Your task to perform on an android device: change your default location settings in chrome Image 0: 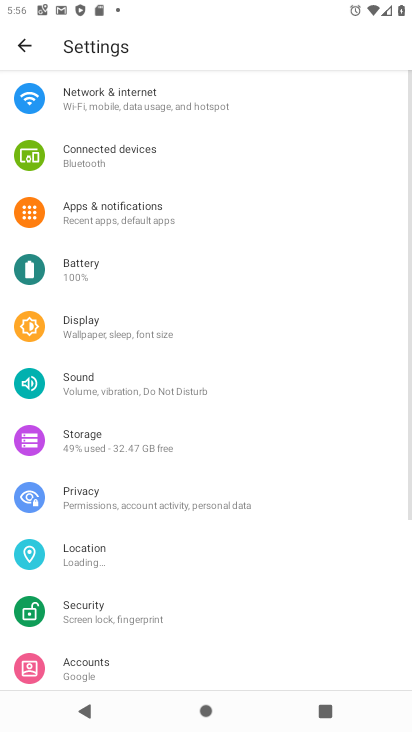
Step 0: press home button
Your task to perform on an android device: change your default location settings in chrome Image 1: 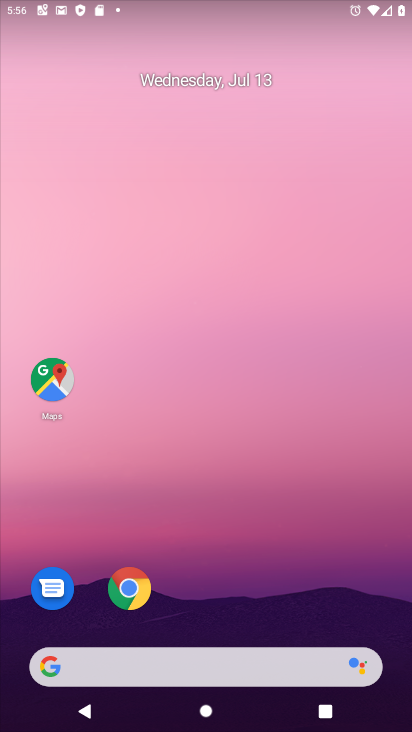
Step 1: click (126, 593)
Your task to perform on an android device: change your default location settings in chrome Image 2: 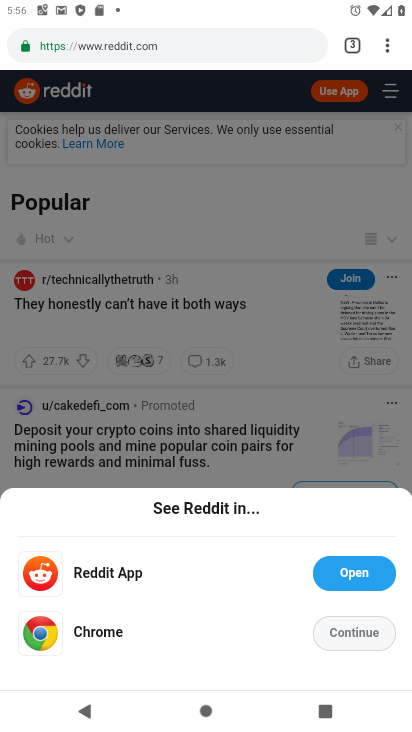
Step 2: click (336, 636)
Your task to perform on an android device: change your default location settings in chrome Image 3: 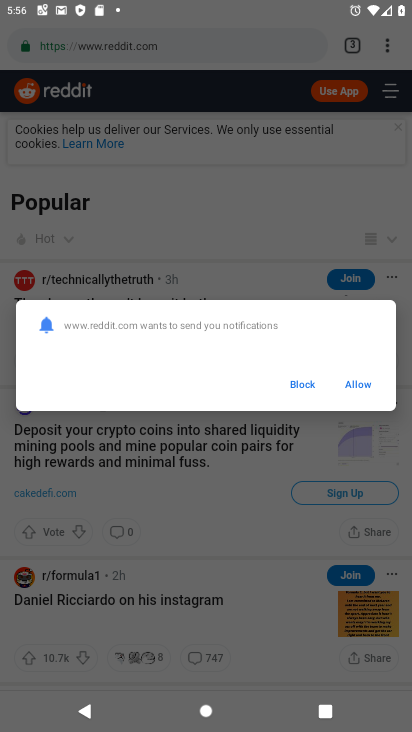
Step 3: click (353, 378)
Your task to perform on an android device: change your default location settings in chrome Image 4: 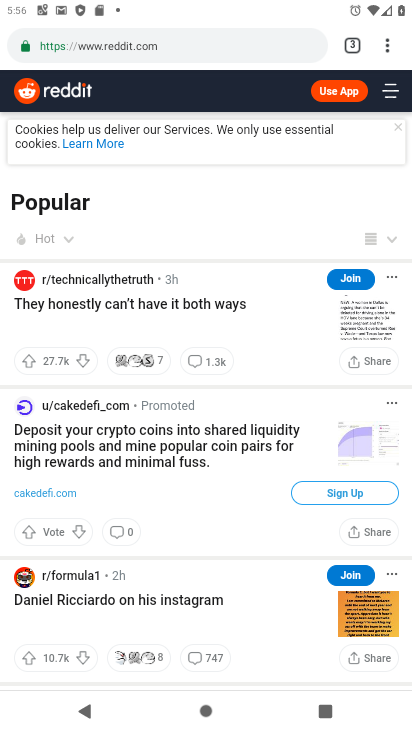
Step 4: click (383, 43)
Your task to perform on an android device: change your default location settings in chrome Image 5: 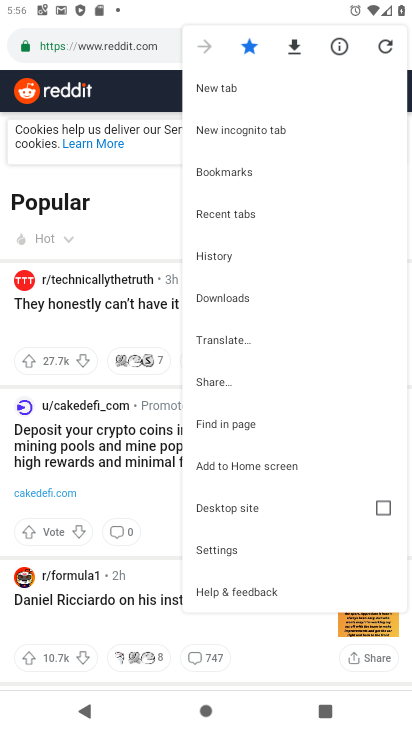
Step 5: click (227, 553)
Your task to perform on an android device: change your default location settings in chrome Image 6: 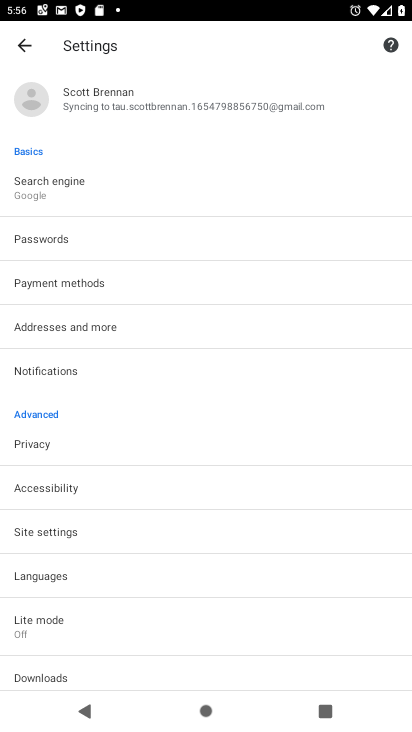
Step 6: drag from (107, 621) to (104, 372)
Your task to perform on an android device: change your default location settings in chrome Image 7: 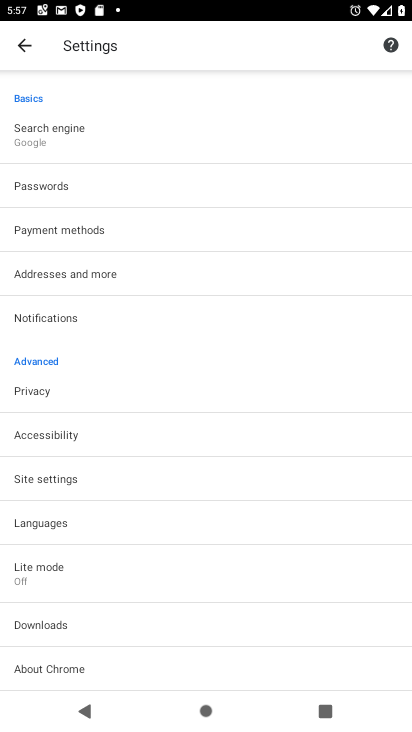
Step 7: click (58, 485)
Your task to perform on an android device: change your default location settings in chrome Image 8: 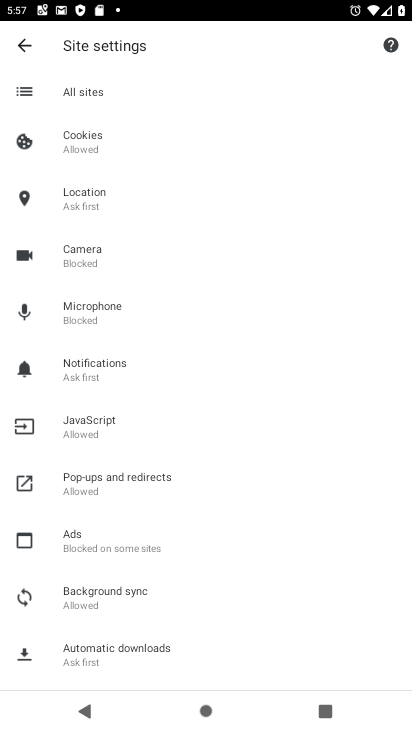
Step 8: click (98, 196)
Your task to perform on an android device: change your default location settings in chrome Image 9: 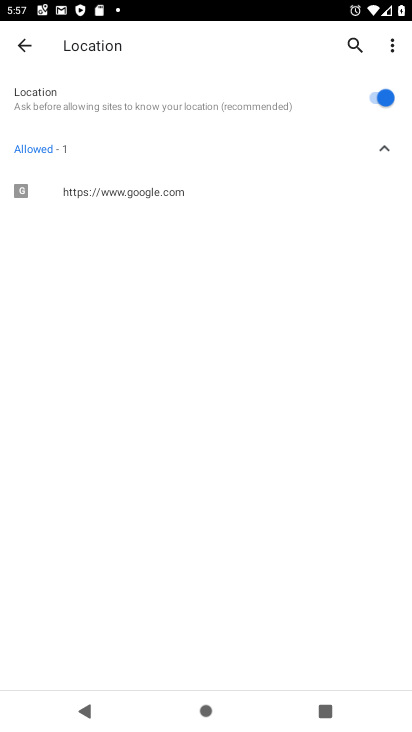
Step 9: click (109, 194)
Your task to perform on an android device: change your default location settings in chrome Image 10: 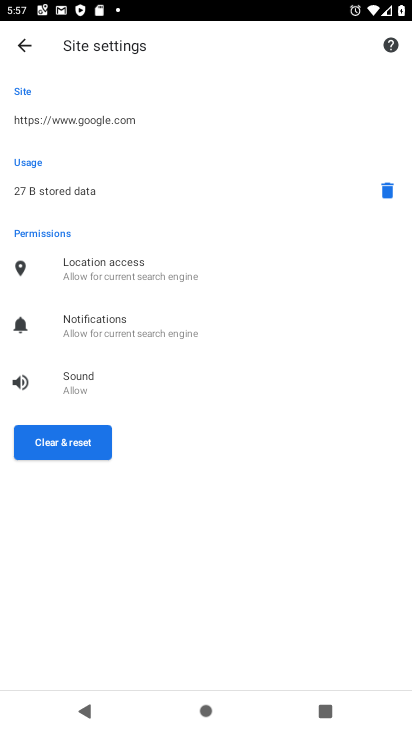
Step 10: click (96, 260)
Your task to perform on an android device: change your default location settings in chrome Image 11: 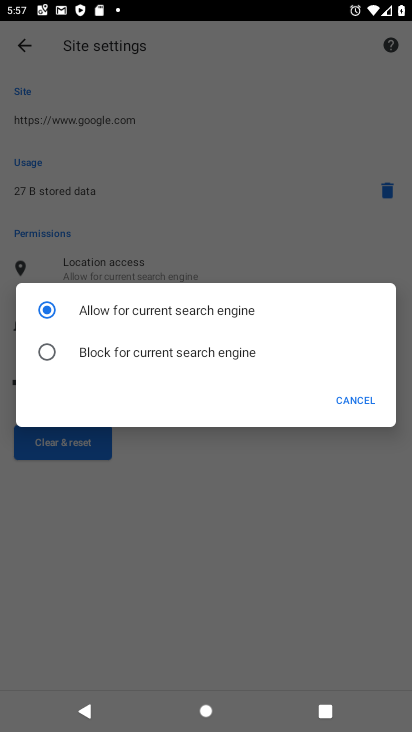
Step 11: click (56, 358)
Your task to perform on an android device: change your default location settings in chrome Image 12: 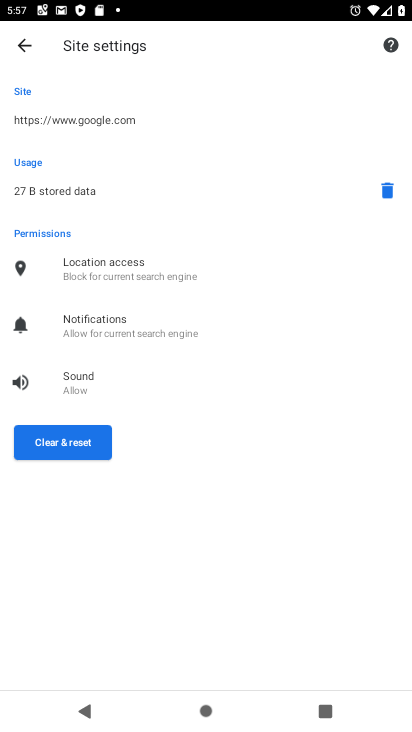
Step 12: task complete